Your task to perform on an android device: turn pop-ups on in chrome Image 0: 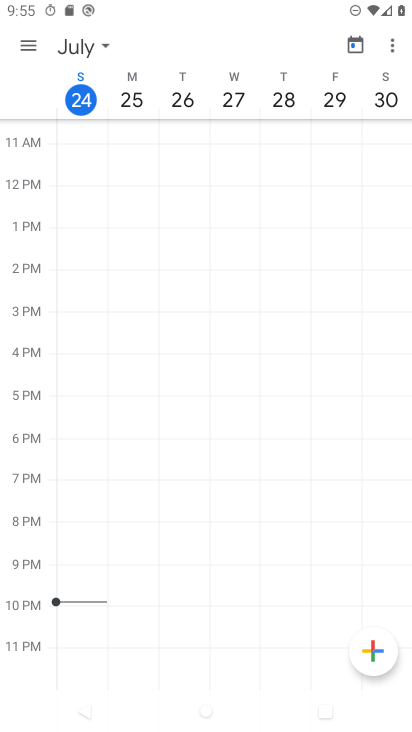
Step 0: press home button
Your task to perform on an android device: turn pop-ups on in chrome Image 1: 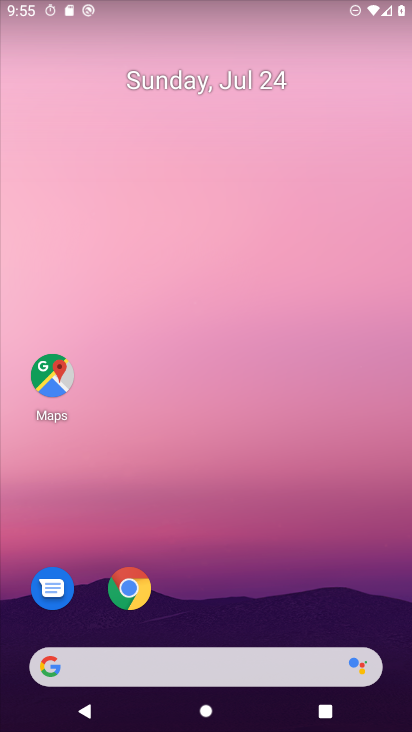
Step 1: click (125, 591)
Your task to perform on an android device: turn pop-ups on in chrome Image 2: 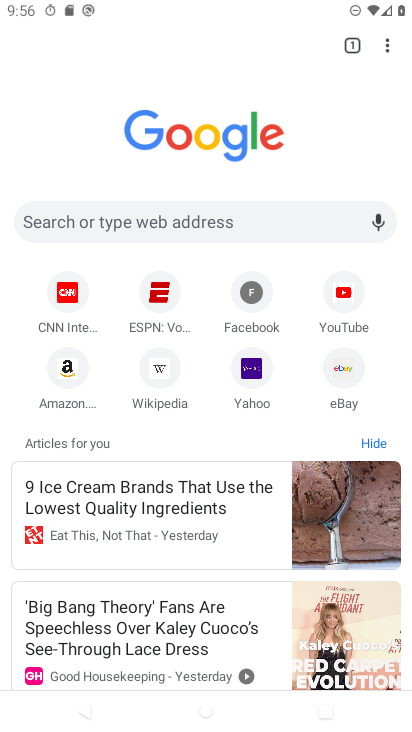
Step 2: click (389, 49)
Your task to perform on an android device: turn pop-ups on in chrome Image 3: 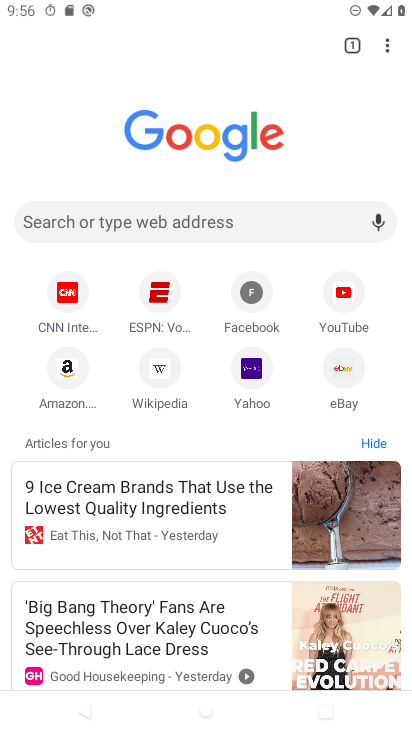
Step 3: drag from (389, 49) to (240, 380)
Your task to perform on an android device: turn pop-ups on in chrome Image 4: 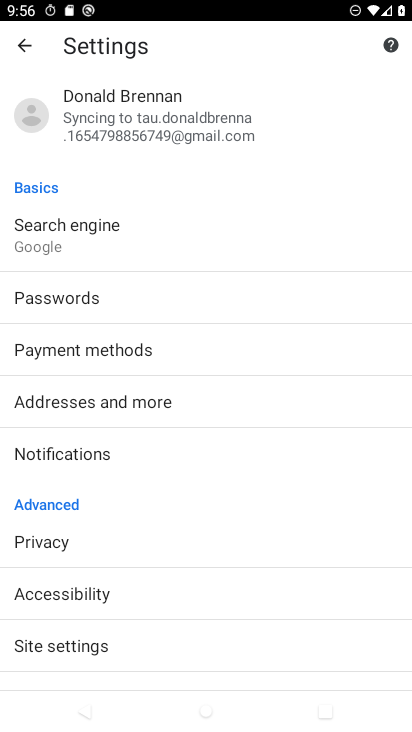
Step 4: click (81, 647)
Your task to perform on an android device: turn pop-ups on in chrome Image 5: 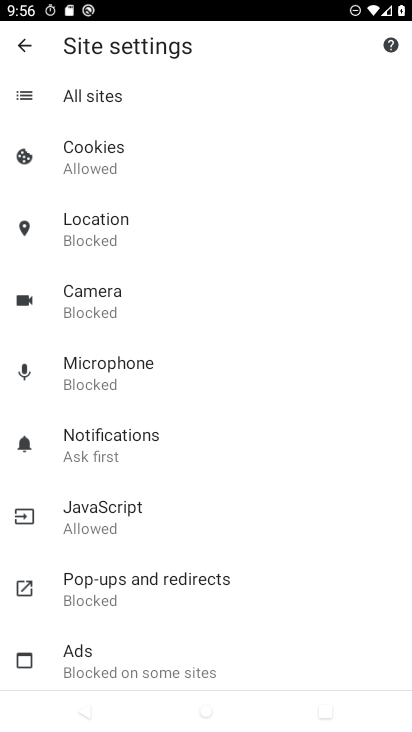
Step 5: click (107, 585)
Your task to perform on an android device: turn pop-ups on in chrome Image 6: 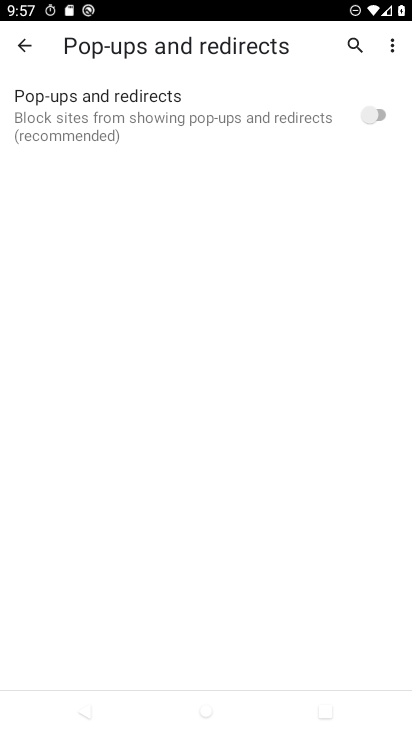
Step 6: click (368, 118)
Your task to perform on an android device: turn pop-ups on in chrome Image 7: 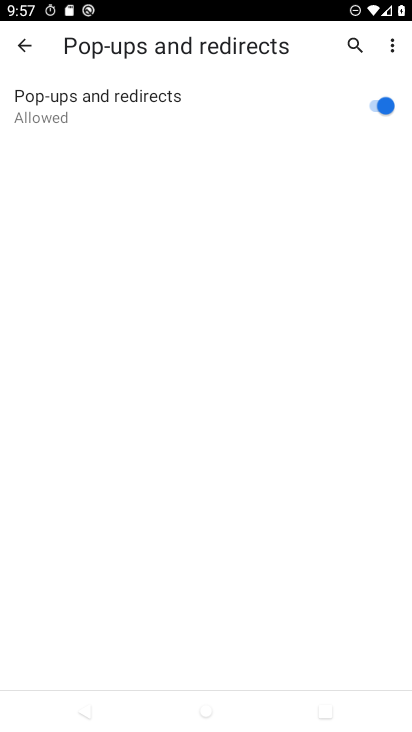
Step 7: task complete